Your task to perform on an android device: open a bookmark in the chrome app Image 0: 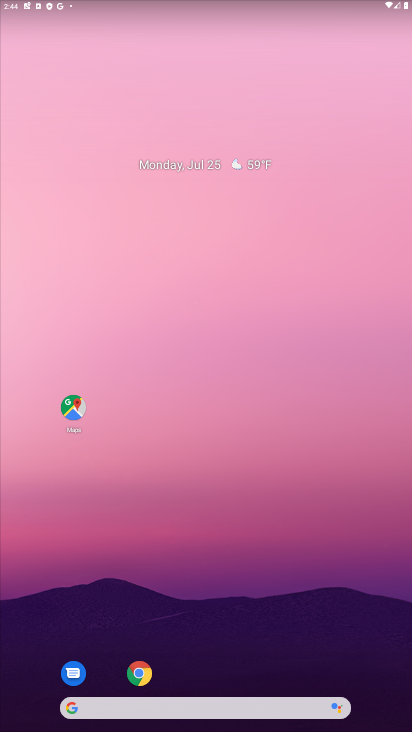
Step 0: click (134, 677)
Your task to perform on an android device: open a bookmark in the chrome app Image 1: 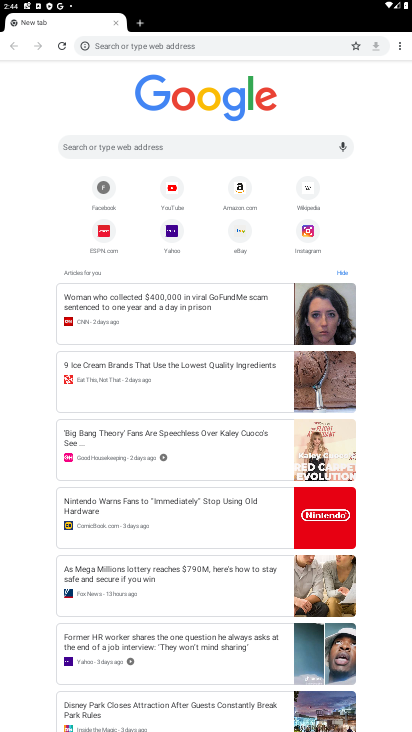
Step 1: click (402, 43)
Your task to perform on an android device: open a bookmark in the chrome app Image 2: 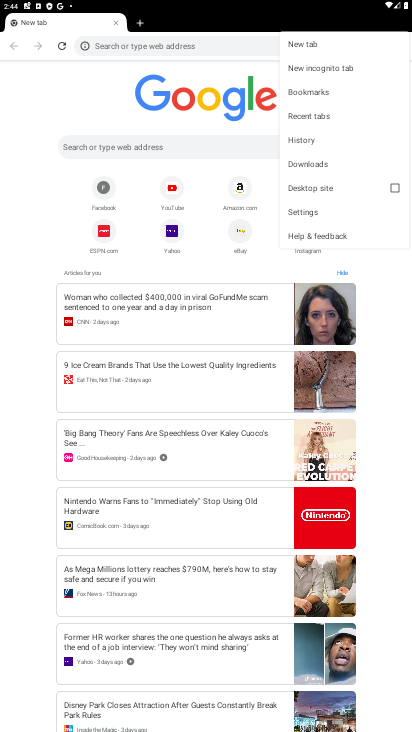
Step 2: click (309, 93)
Your task to perform on an android device: open a bookmark in the chrome app Image 3: 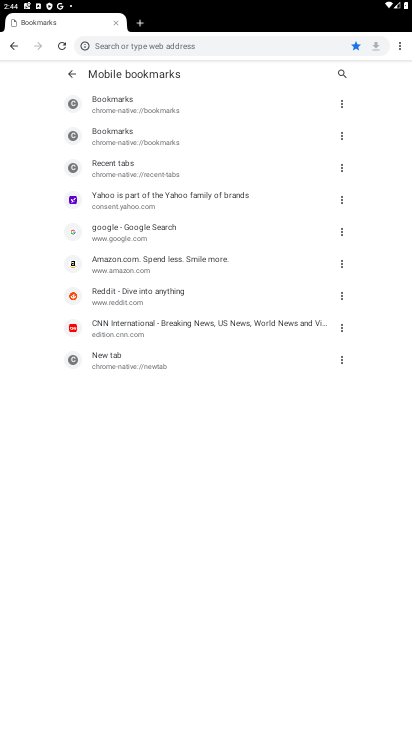
Step 3: click (128, 231)
Your task to perform on an android device: open a bookmark in the chrome app Image 4: 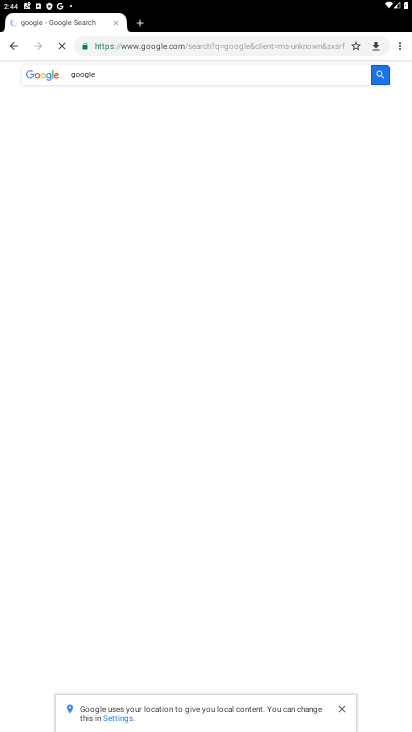
Step 4: task complete